Your task to perform on an android device: Open Android settings Image 0: 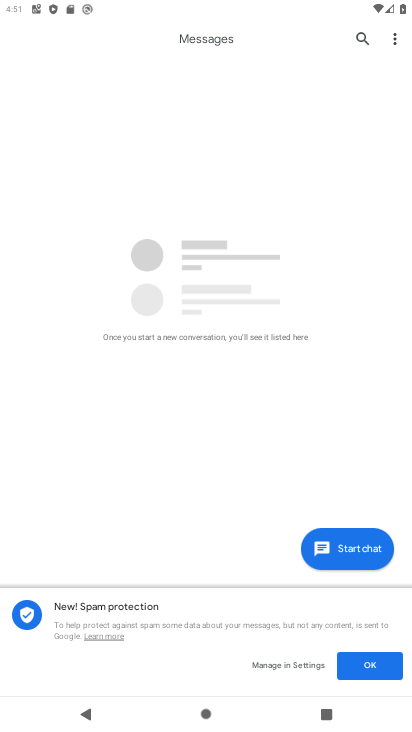
Step 0: press home button
Your task to perform on an android device: Open Android settings Image 1: 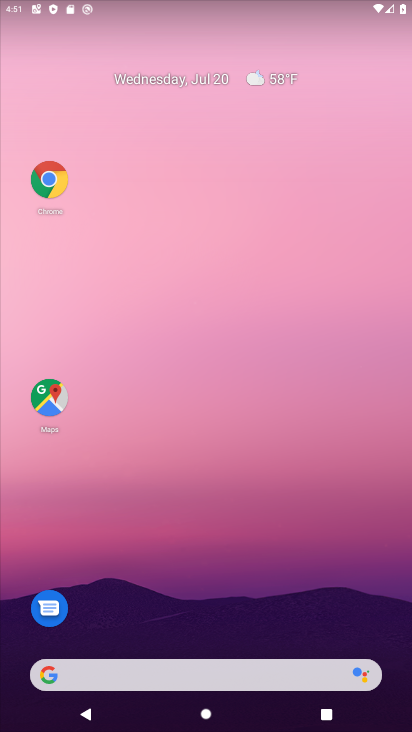
Step 1: drag from (219, 631) to (83, 130)
Your task to perform on an android device: Open Android settings Image 2: 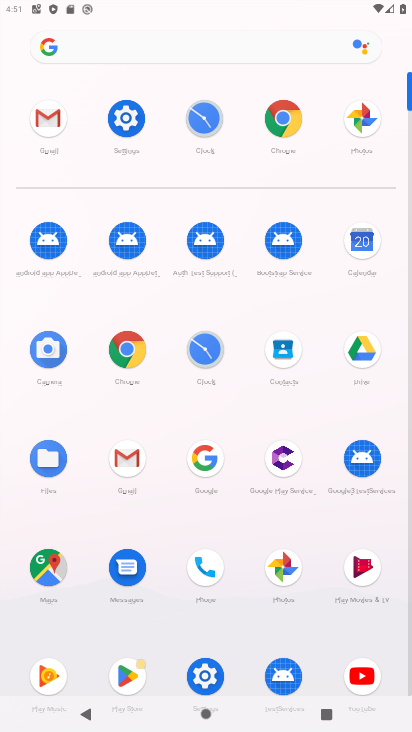
Step 2: click (137, 125)
Your task to perform on an android device: Open Android settings Image 3: 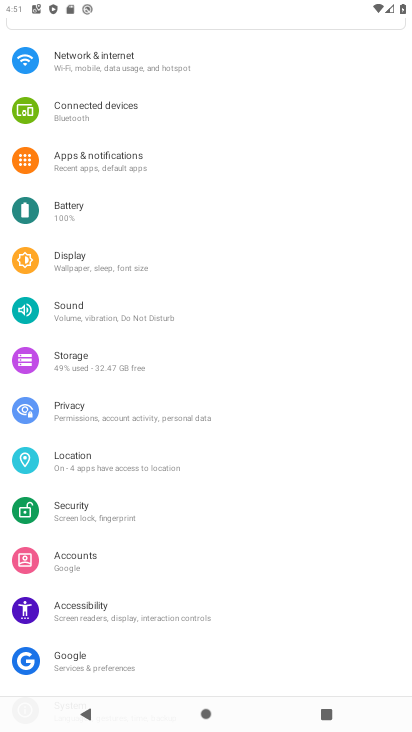
Step 3: task complete